Your task to perform on an android device: Search for apple airpods pro on target, select the first entry, add it to the cart, then select checkout. Image 0: 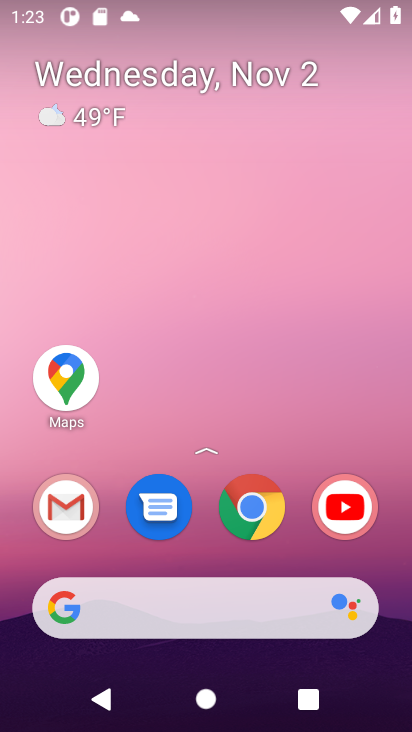
Step 0: click (162, 610)
Your task to perform on an android device: Search for apple airpods pro on target, select the first entry, add it to the cart, then select checkout. Image 1: 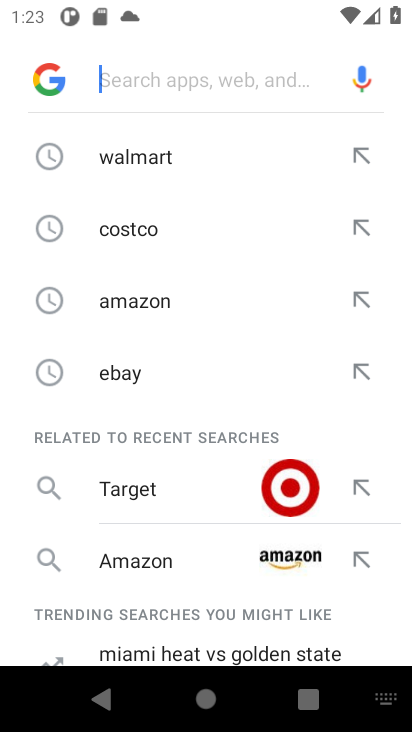
Step 1: type "target"
Your task to perform on an android device: Search for apple airpods pro on target, select the first entry, add it to the cart, then select checkout. Image 2: 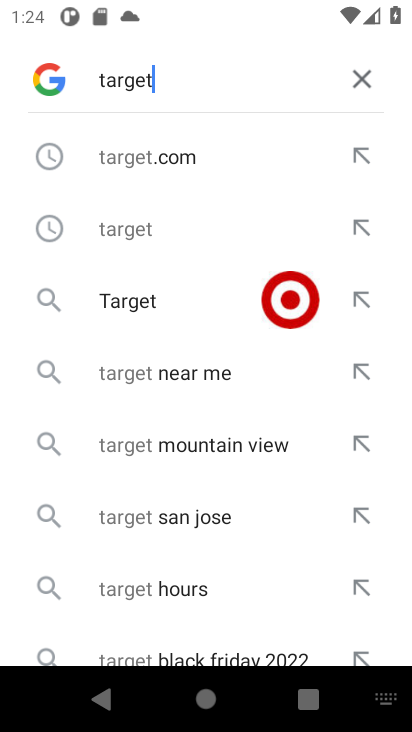
Step 2: click (135, 213)
Your task to perform on an android device: Search for apple airpods pro on target, select the first entry, add it to the cart, then select checkout. Image 3: 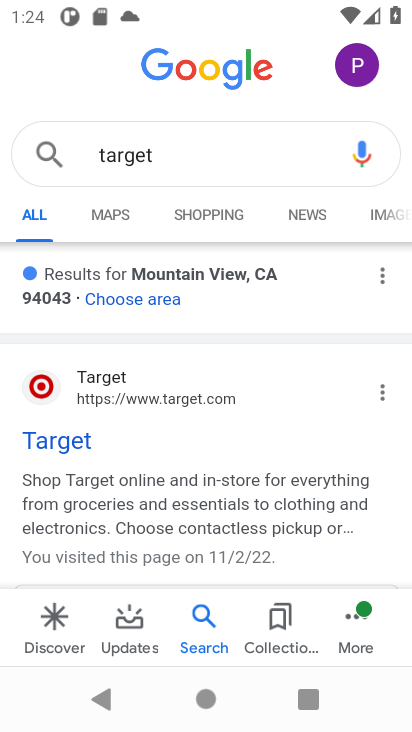
Step 3: click (74, 378)
Your task to perform on an android device: Search for apple airpods pro on target, select the first entry, add it to the cart, then select checkout. Image 4: 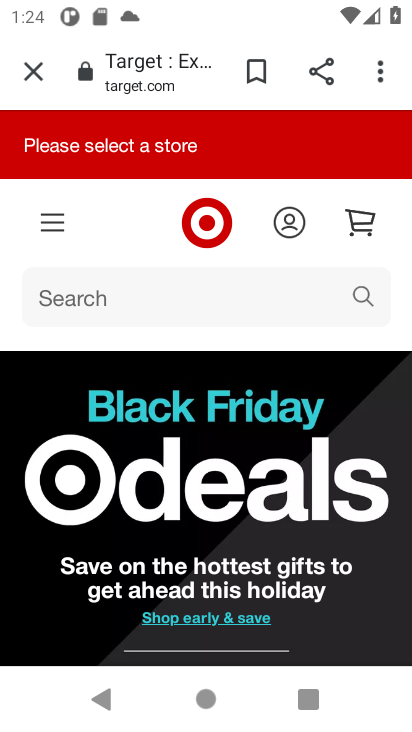
Step 4: click (248, 290)
Your task to perform on an android device: Search for apple airpods pro on target, select the first entry, add it to the cart, then select checkout. Image 5: 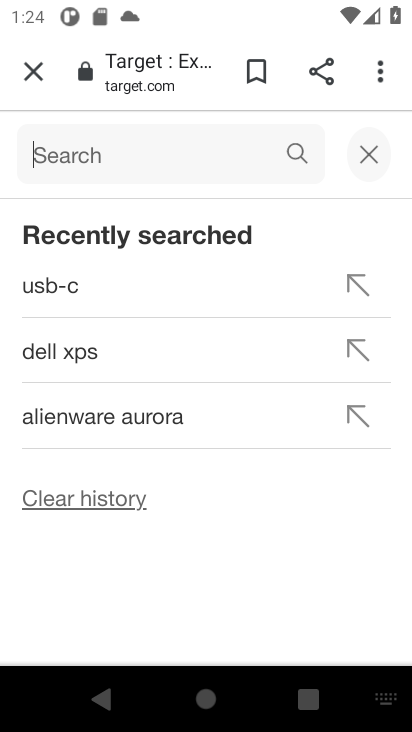
Step 5: type "apple airpods"
Your task to perform on an android device: Search for apple airpods pro on target, select the first entry, add it to the cart, then select checkout. Image 6: 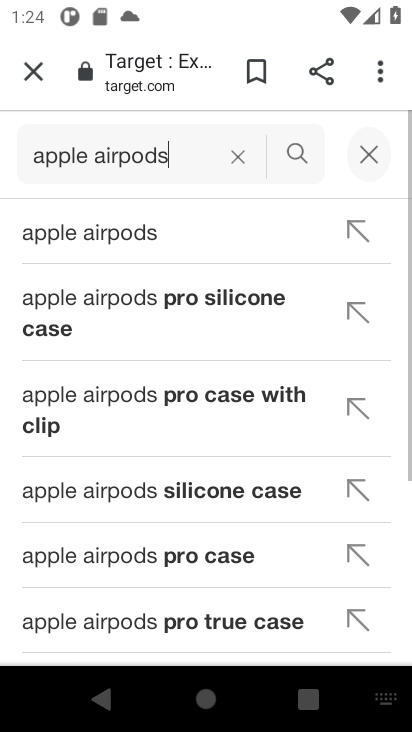
Step 6: type ""
Your task to perform on an android device: Search for apple airpods pro on target, select the first entry, add it to the cart, then select checkout. Image 7: 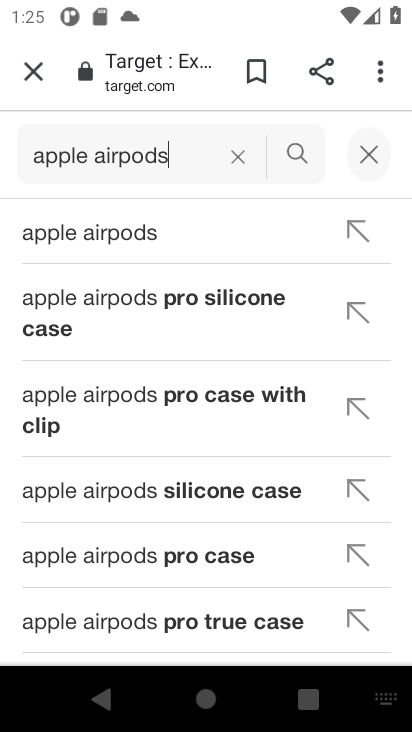
Step 7: click (160, 222)
Your task to perform on an android device: Search for apple airpods pro on target, select the first entry, add it to the cart, then select checkout. Image 8: 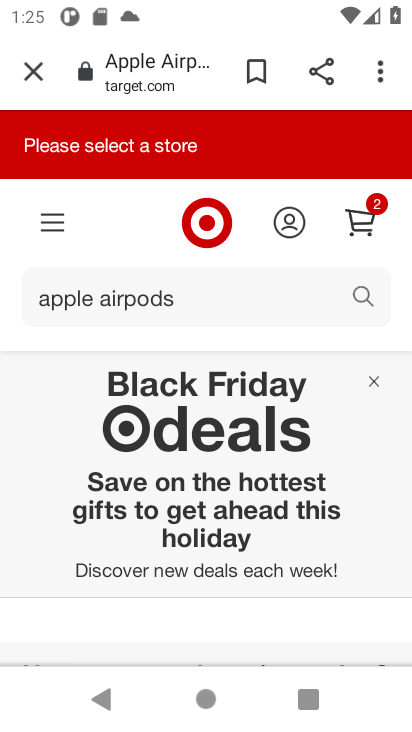
Step 8: drag from (243, 586) to (255, 95)
Your task to perform on an android device: Search for apple airpods pro on target, select the first entry, add it to the cart, then select checkout. Image 9: 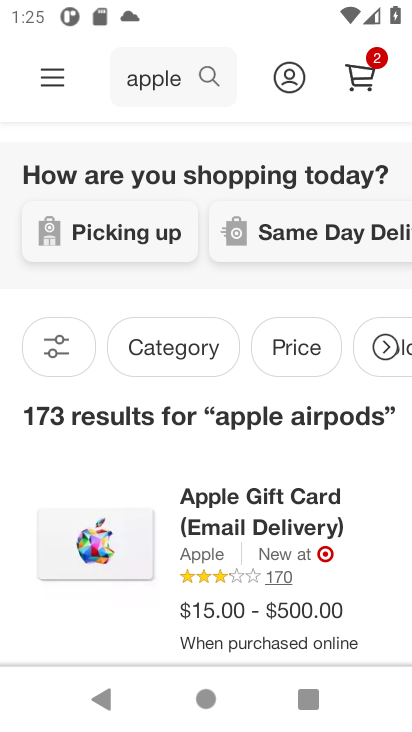
Step 9: drag from (217, 513) to (244, 300)
Your task to perform on an android device: Search for apple airpods pro on target, select the first entry, add it to the cart, then select checkout. Image 10: 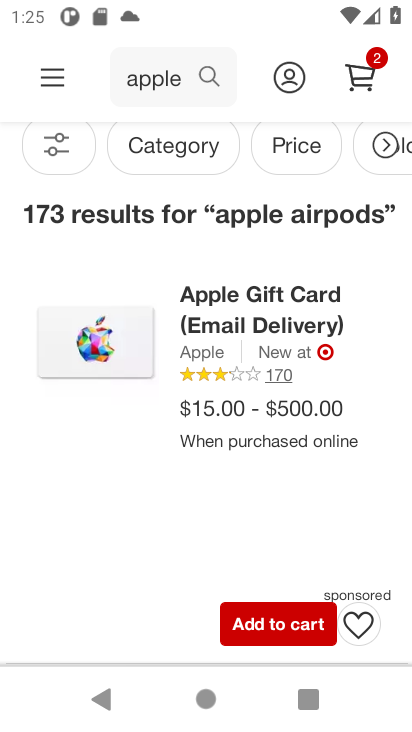
Step 10: drag from (256, 524) to (280, 208)
Your task to perform on an android device: Search for apple airpods pro on target, select the first entry, add it to the cart, then select checkout. Image 11: 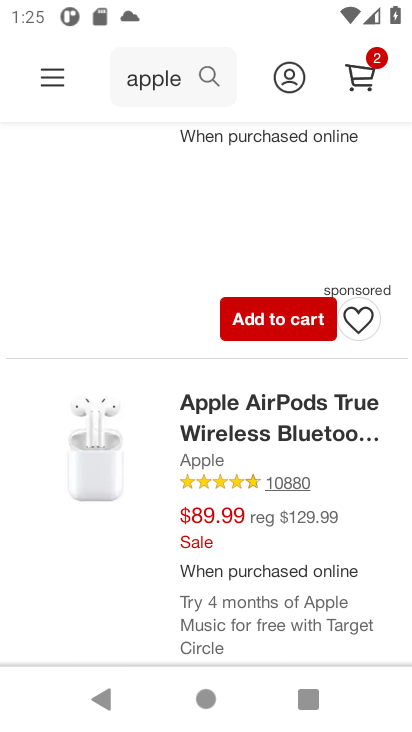
Step 11: click (256, 444)
Your task to perform on an android device: Search for apple airpods pro on target, select the first entry, add it to the cart, then select checkout. Image 12: 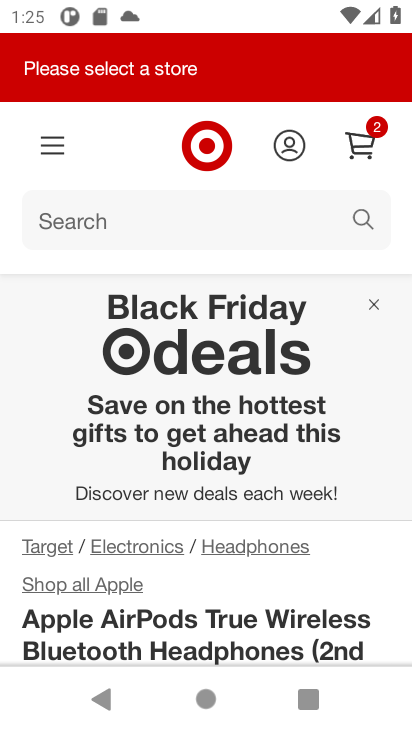
Step 12: drag from (263, 520) to (253, 295)
Your task to perform on an android device: Search for apple airpods pro on target, select the first entry, add it to the cart, then select checkout. Image 13: 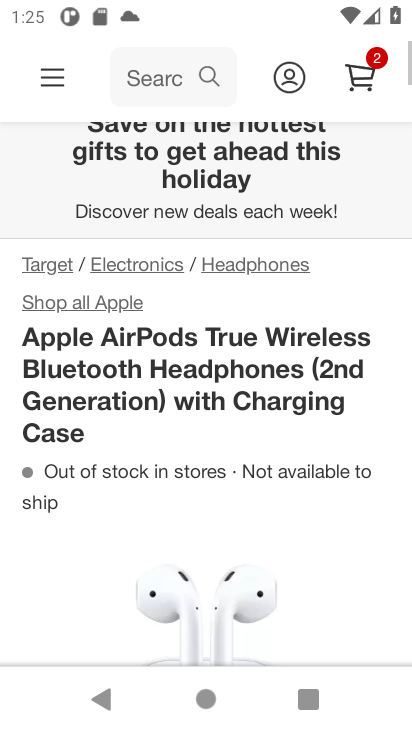
Step 13: drag from (256, 575) to (264, 313)
Your task to perform on an android device: Search for apple airpods pro on target, select the first entry, add it to the cart, then select checkout. Image 14: 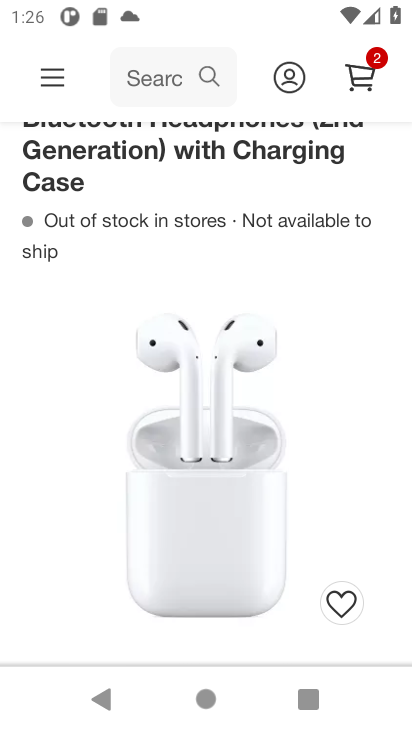
Step 14: drag from (323, 493) to (309, 224)
Your task to perform on an android device: Search for apple airpods pro on target, select the first entry, add it to the cart, then select checkout. Image 15: 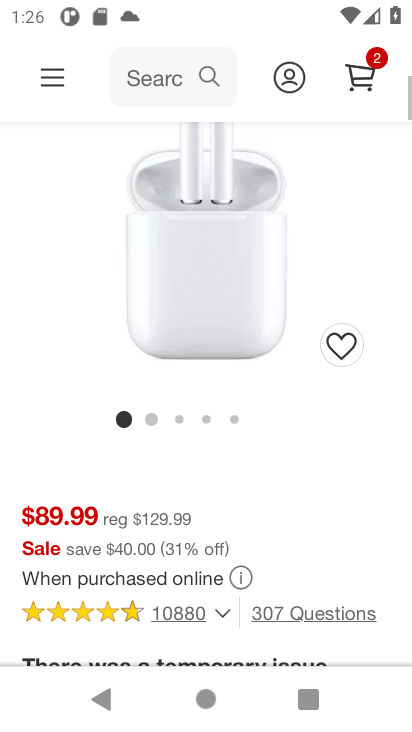
Step 15: drag from (282, 453) to (281, 242)
Your task to perform on an android device: Search for apple airpods pro on target, select the first entry, add it to the cart, then select checkout. Image 16: 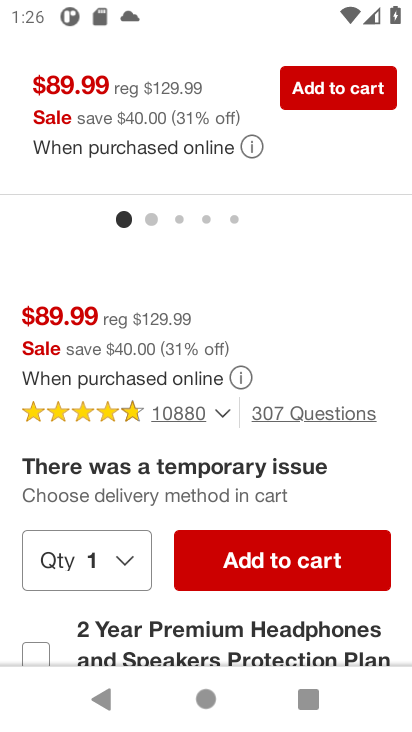
Step 16: click (217, 570)
Your task to perform on an android device: Search for apple airpods pro on target, select the first entry, add it to the cart, then select checkout. Image 17: 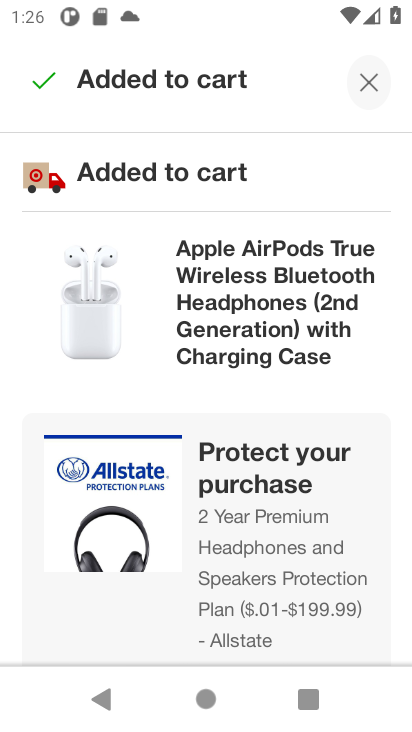
Step 17: task complete